Your task to perform on an android device: Search for vegetarian restaurants on Maps Image 0: 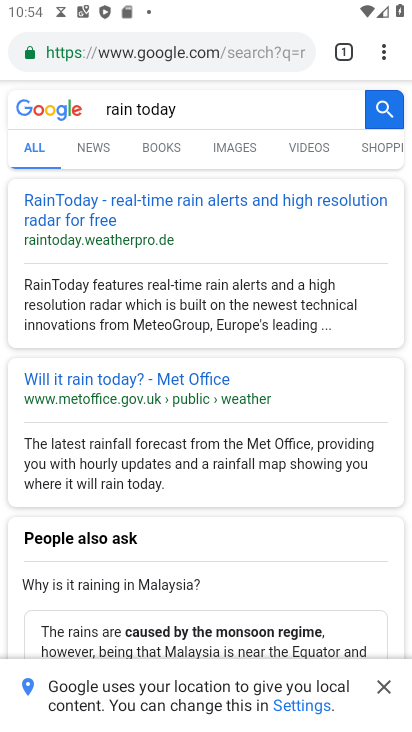
Step 0: click (11, 103)
Your task to perform on an android device: Search for vegetarian restaurants on Maps Image 1: 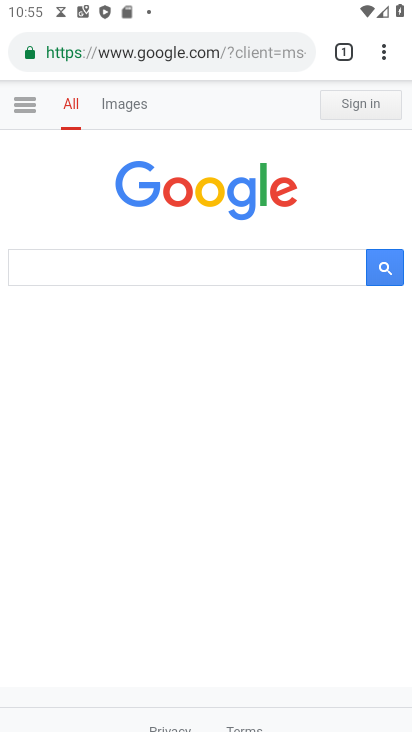
Step 1: press home button
Your task to perform on an android device: Search for vegetarian restaurants on Maps Image 2: 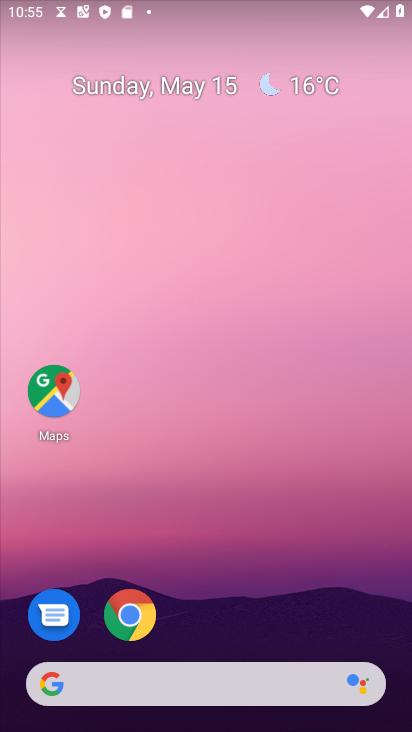
Step 2: drag from (286, 706) to (338, 25)
Your task to perform on an android device: Search for vegetarian restaurants on Maps Image 3: 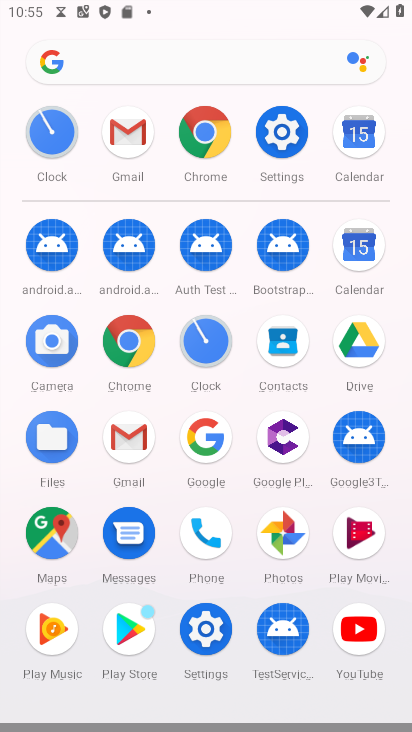
Step 3: click (40, 541)
Your task to perform on an android device: Search for vegetarian restaurants on Maps Image 4: 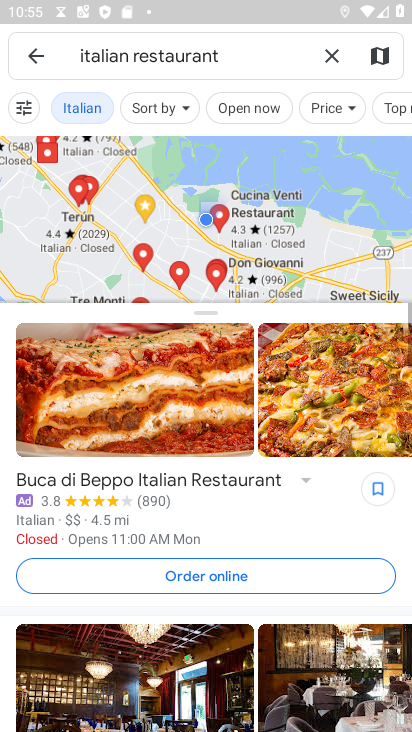
Step 4: click (336, 58)
Your task to perform on an android device: Search for vegetarian restaurants on Maps Image 5: 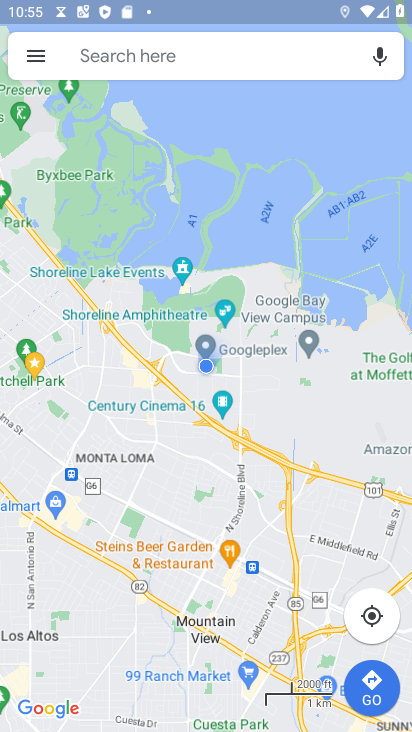
Step 5: click (276, 64)
Your task to perform on an android device: Search for vegetarian restaurants on Maps Image 6: 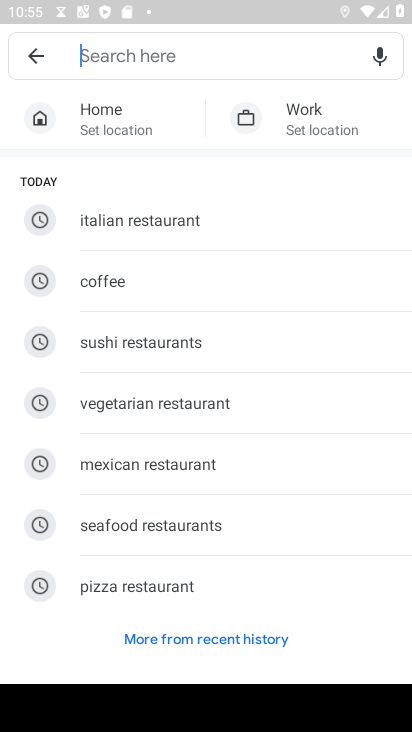
Step 6: click (161, 406)
Your task to perform on an android device: Search for vegetarian restaurants on Maps Image 7: 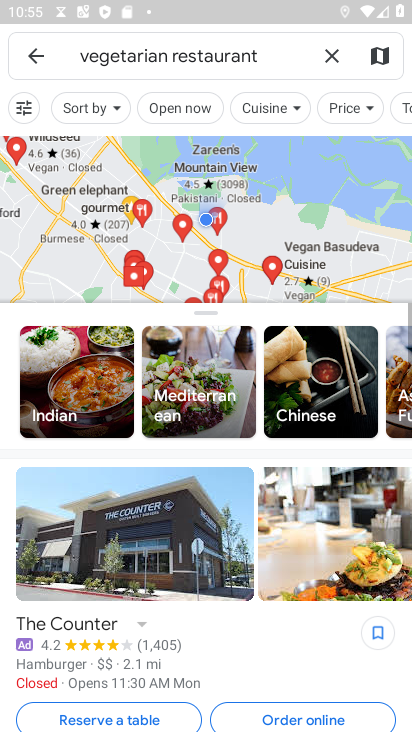
Step 7: task complete